Your task to perform on an android device: Search for seafood restaurants on Google Maps Image 0: 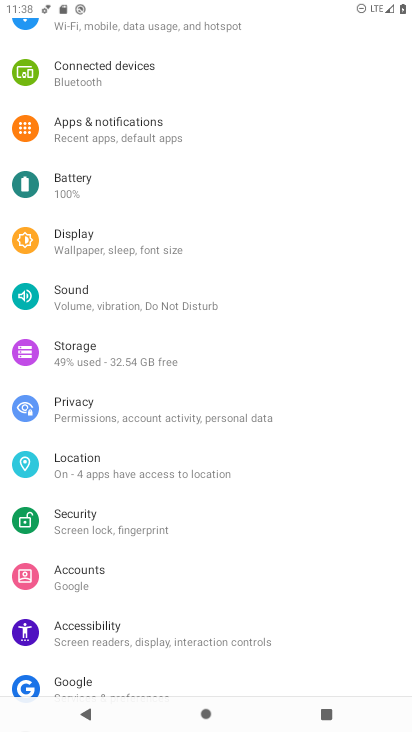
Step 0: press home button
Your task to perform on an android device: Search for seafood restaurants on Google Maps Image 1: 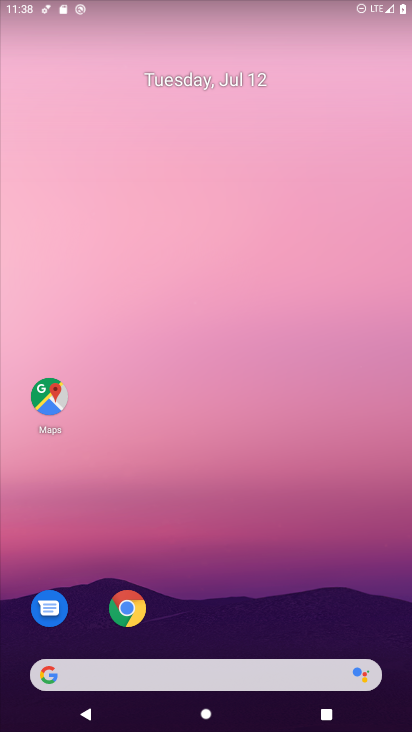
Step 1: click (39, 392)
Your task to perform on an android device: Search for seafood restaurants on Google Maps Image 2: 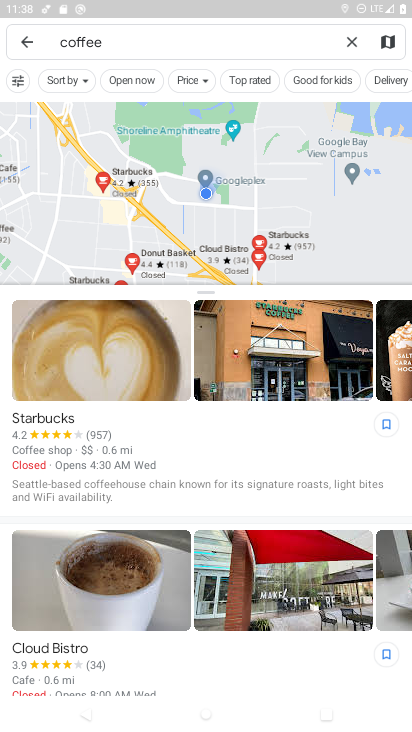
Step 2: click (356, 44)
Your task to perform on an android device: Search for seafood restaurants on Google Maps Image 3: 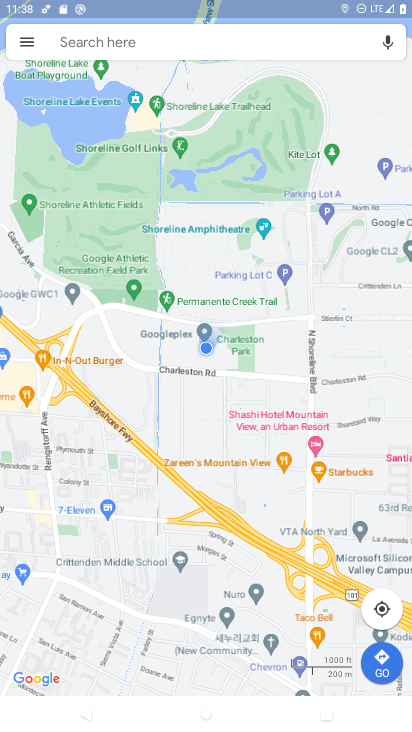
Step 3: click (247, 46)
Your task to perform on an android device: Search for seafood restaurants on Google Maps Image 4: 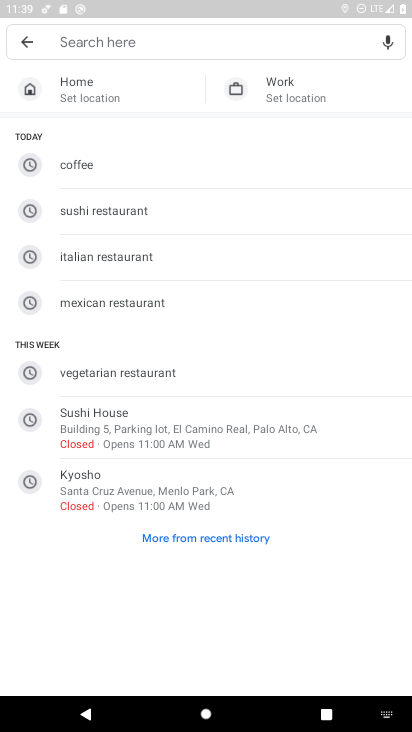
Step 4: type "seafood rstaurant"
Your task to perform on an android device: Search for seafood restaurants on Google Maps Image 5: 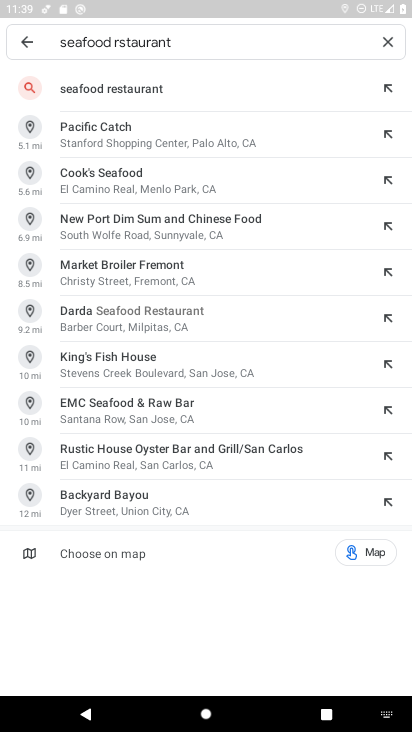
Step 5: click (233, 108)
Your task to perform on an android device: Search for seafood restaurants on Google Maps Image 6: 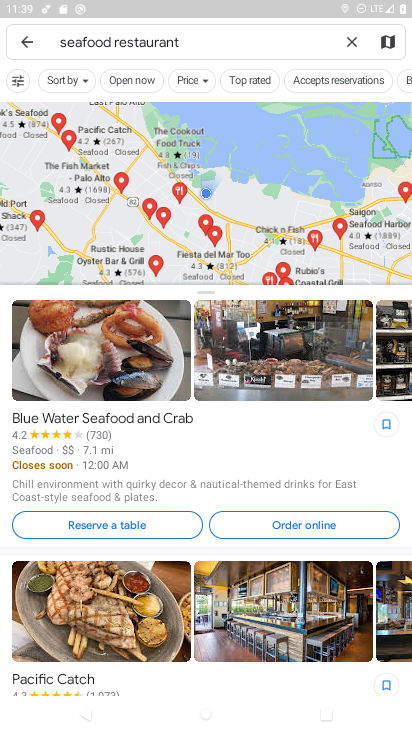
Step 6: task complete